Your task to perform on an android device: Go to privacy settings Image 0: 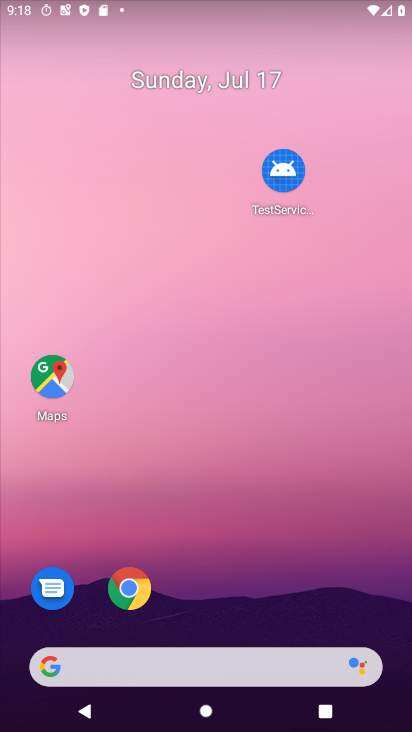
Step 0: drag from (241, 619) to (324, 157)
Your task to perform on an android device: Go to privacy settings Image 1: 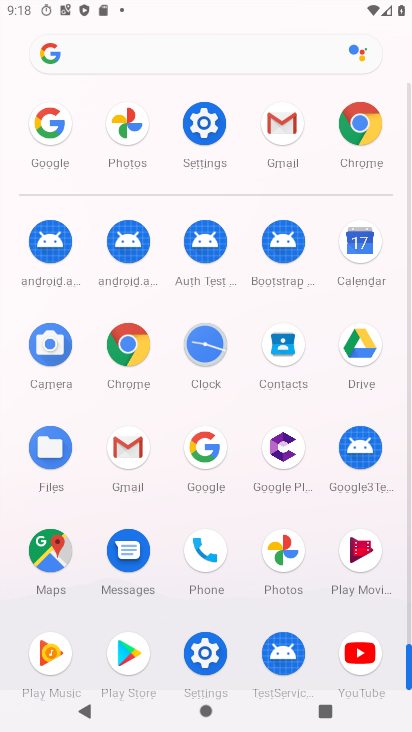
Step 1: click (196, 140)
Your task to perform on an android device: Go to privacy settings Image 2: 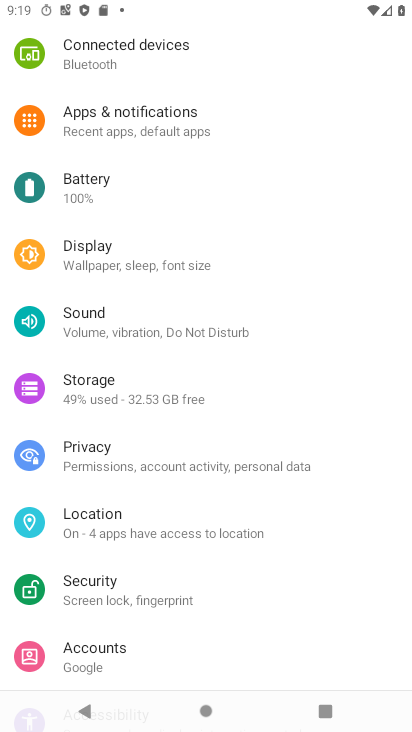
Step 2: click (159, 457)
Your task to perform on an android device: Go to privacy settings Image 3: 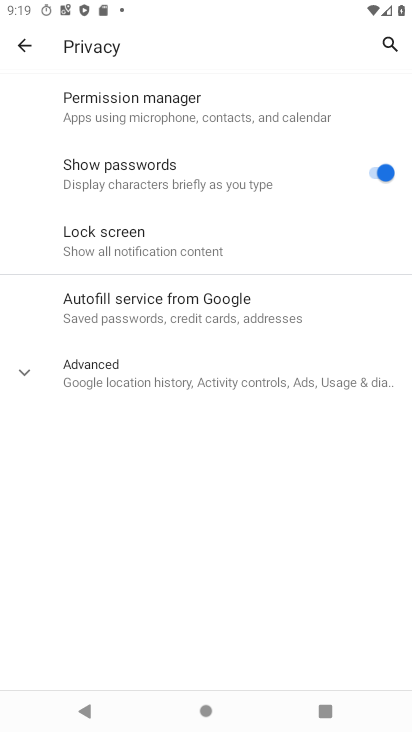
Step 3: click (177, 379)
Your task to perform on an android device: Go to privacy settings Image 4: 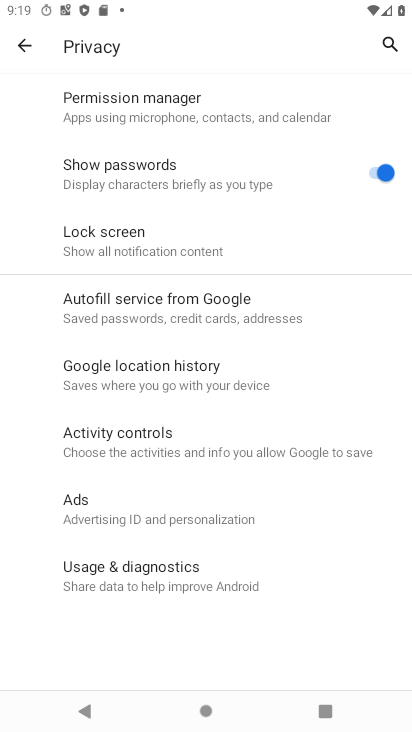
Step 4: task complete